Your task to perform on an android device: Open maps Image 0: 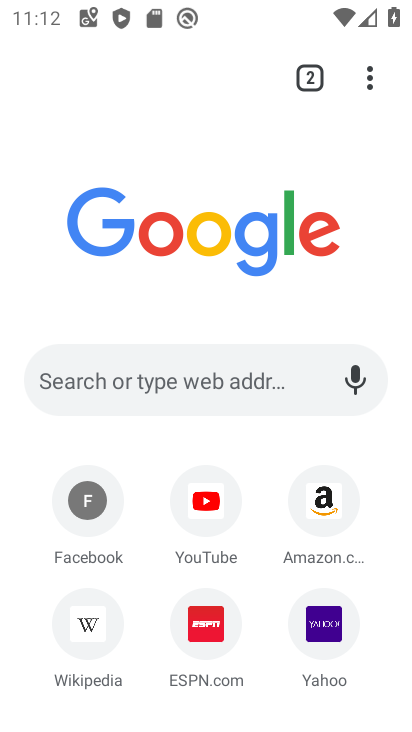
Step 0: press home button
Your task to perform on an android device: Open maps Image 1: 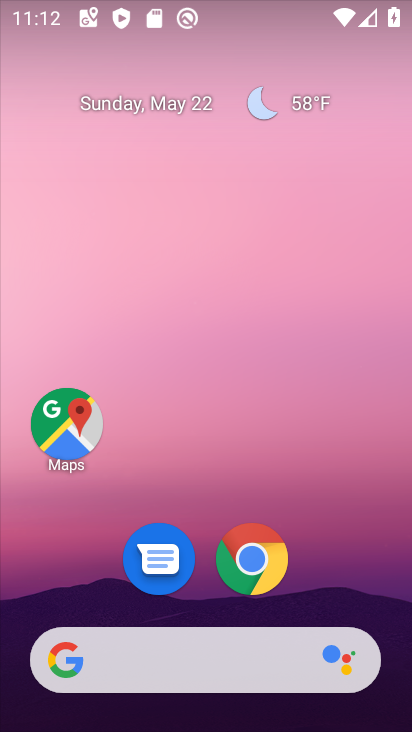
Step 1: click (91, 449)
Your task to perform on an android device: Open maps Image 2: 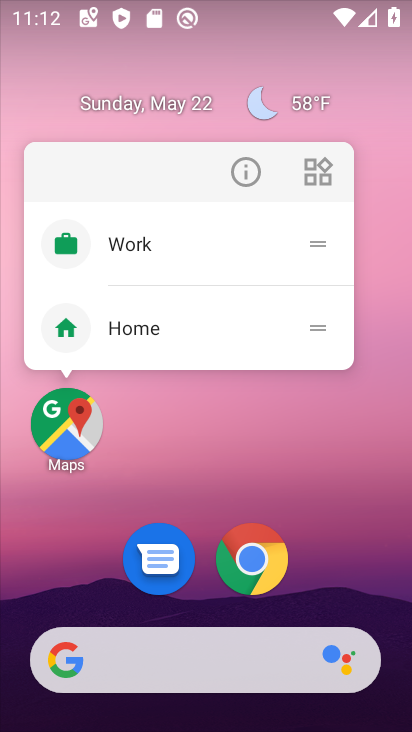
Step 2: click (71, 437)
Your task to perform on an android device: Open maps Image 3: 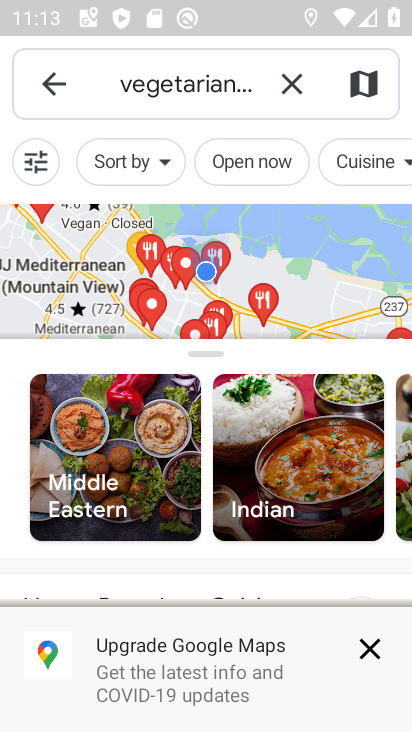
Step 3: task complete